Your task to perform on an android device: Go to display settings Image 0: 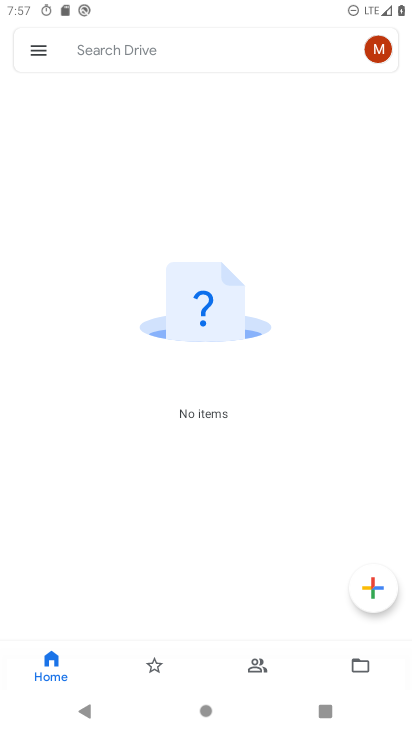
Step 0: press home button
Your task to perform on an android device: Go to display settings Image 1: 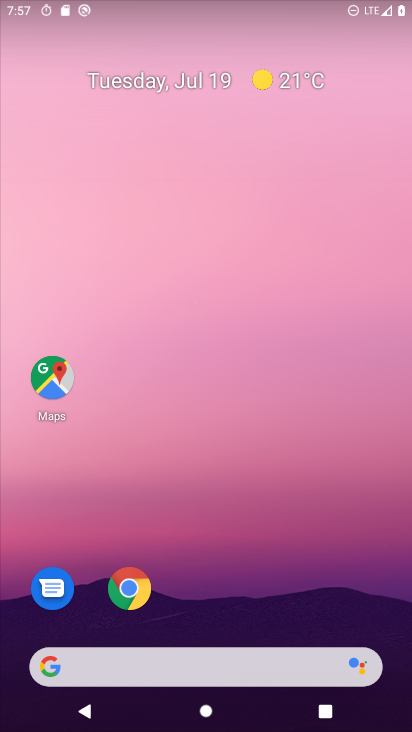
Step 1: drag from (293, 529) to (303, 48)
Your task to perform on an android device: Go to display settings Image 2: 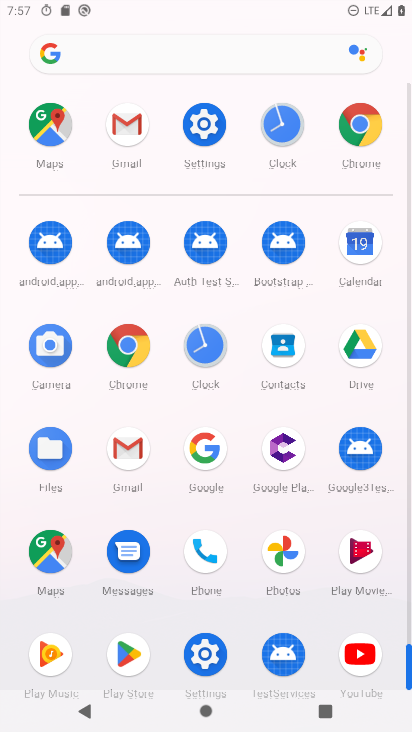
Step 2: click (208, 657)
Your task to perform on an android device: Go to display settings Image 3: 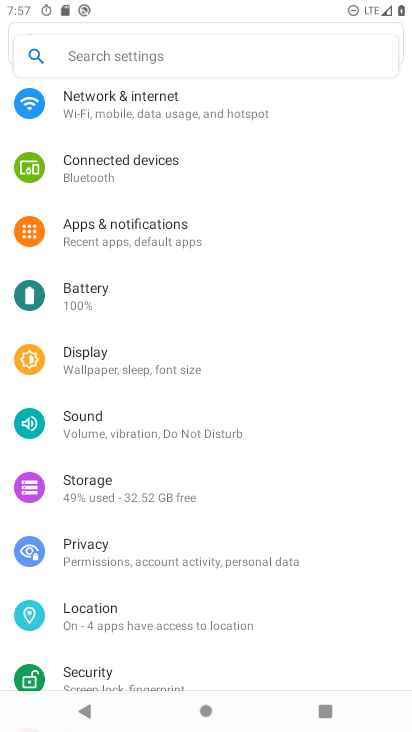
Step 3: click (127, 364)
Your task to perform on an android device: Go to display settings Image 4: 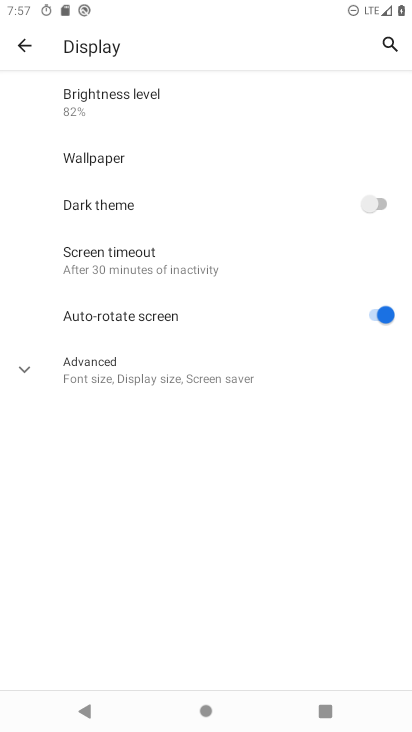
Step 4: task complete